Your task to perform on an android device: empty trash in the gmail app Image 0: 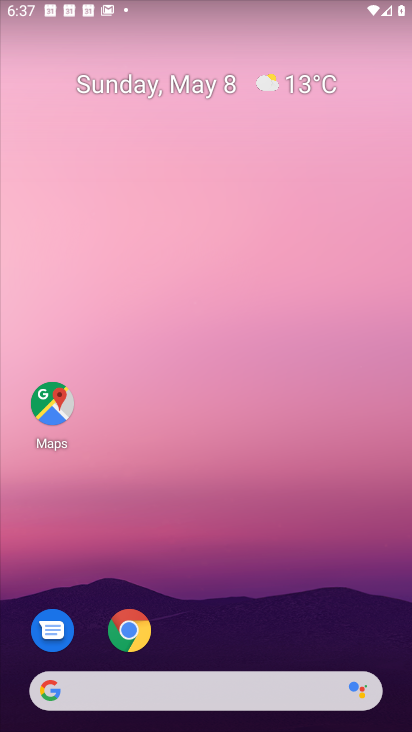
Step 0: drag from (276, 579) to (129, 28)
Your task to perform on an android device: empty trash in the gmail app Image 1: 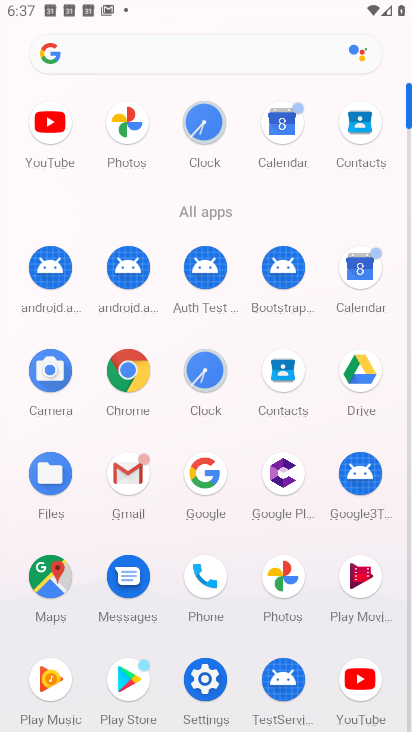
Step 1: click (128, 476)
Your task to perform on an android device: empty trash in the gmail app Image 2: 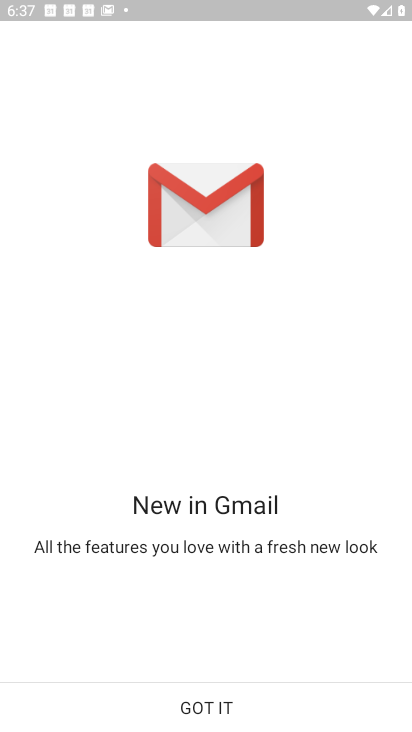
Step 2: click (206, 707)
Your task to perform on an android device: empty trash in the gmail app Image 3: 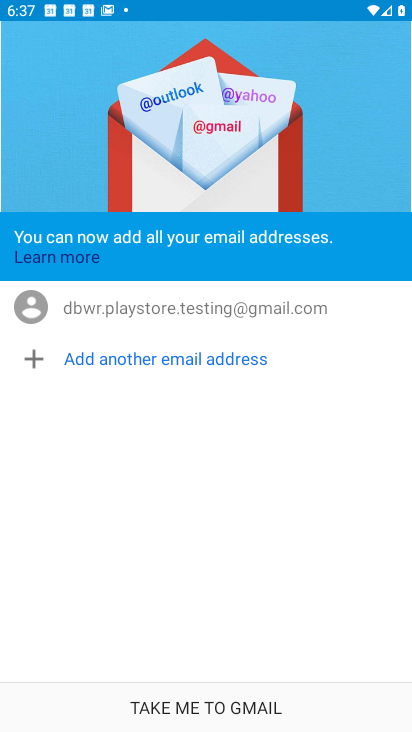
Step 3: click (206, 703)
Your task to perform on an android device: empty trash in the gmail app Image 4: 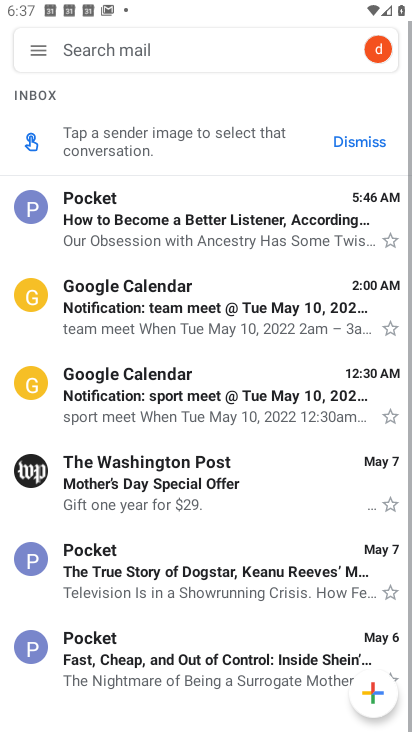
Step 4: click (39, 54)
Your task to perform on an android device: empty trash in the gmail app Image 5: 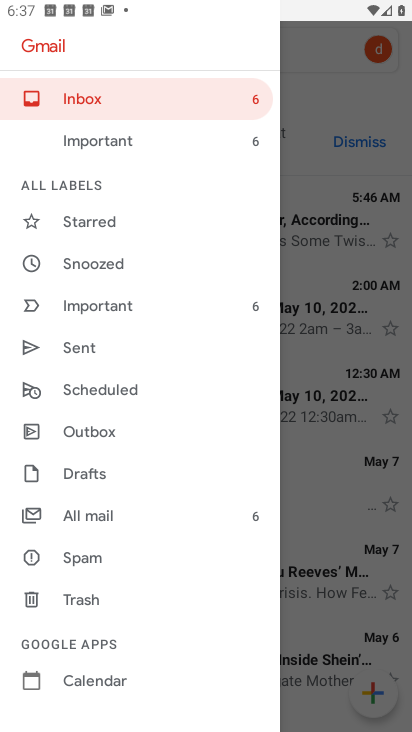
Step 5: click (80, 593)
Your task to perform on an android device: empty trash in the gmail app Image 6: 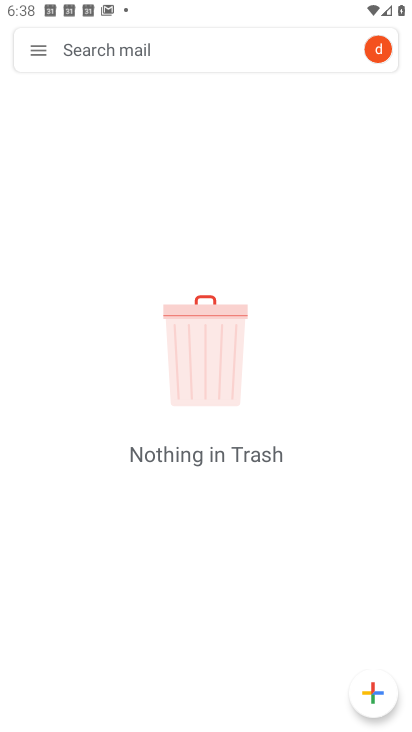
Step 6: task complete